Your task to perform on an android device: Search for lenovo thinkpad on walmart.com, select the first entry, and add it to the cart. Image 0: 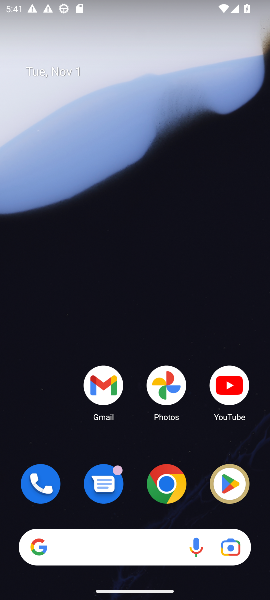
Step 0: click (168, 479)
Your task to perform on an android device: Search for lenovo thinkpad on walmart.com, select the first entry, and add it to the cart. Image 1: 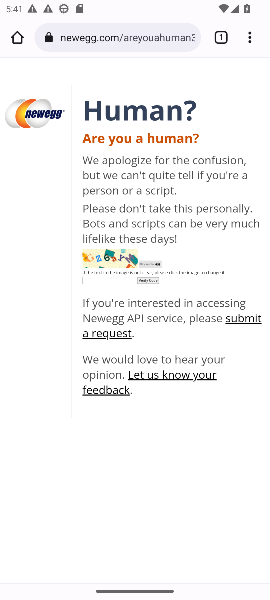
Step 1: click (112, 35)
Your task to perform on an android device: Search for lenovo thinkpad on walmart.com, select the first entry, and add it to the cart. Image 2: 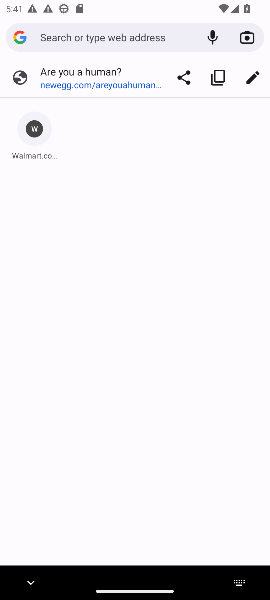
Step 2: type "walmart.com"
Your task to perform on an android device: Search for lenovo thinkpad on walmart.com, select the first entry, and add it to the cart. Image 3: 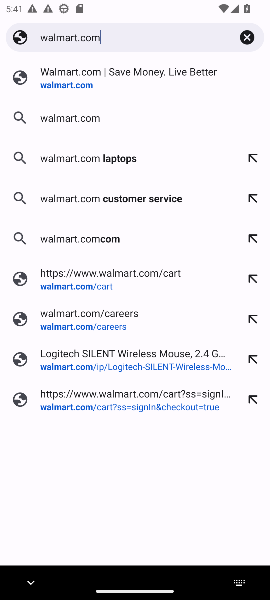
Step 3: click (109, 74)
Your task to perform on an android device: Search for lenovo thinkpad on walmart.com, select the first entry, and add it to the cart. Image 4: 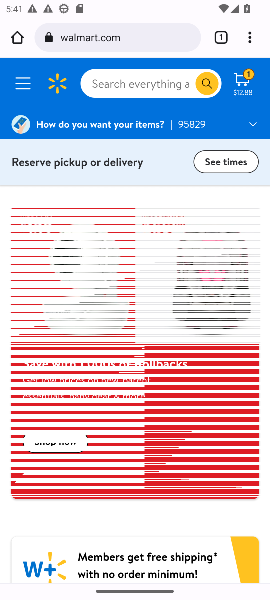
Step 4: click (117, 80)
Your task to perform on an android device: Search for lenovo thinkpad on walmart.com, select the first entry, and add it to the cart. Image 5: 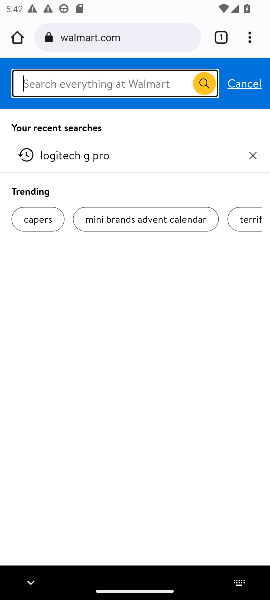
Step 5: type " lenovo thinkpad"
Your task to perform on an android device: Search for lenovo thinkpad on walmart.com, select the first entry, and add it to the cart. Image 6: 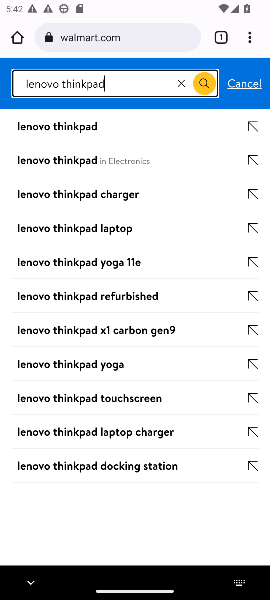
Step 6: click (92, 125)
Your task to perform on an android device: Search for lenovo thinkpad on walmart.com, select the first entry, and add it to the cart. Image 7: 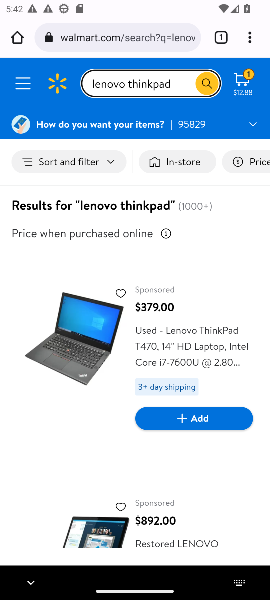
Step 7: click (196, 418)
Your task to perform on an android device: Search for lenovo thinkpad on walmart.com, select the first entry, and add it to the cart. Image 8: 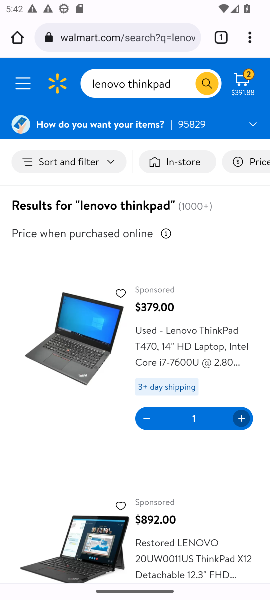
Step 8: task complete